Your task to perform on an android device: change notifications settings Image 0: 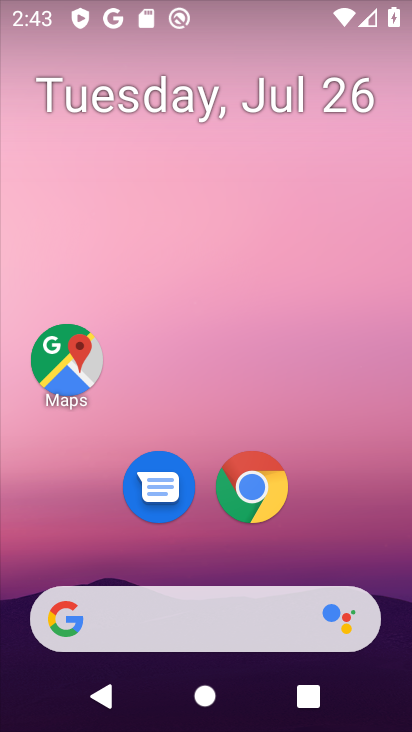
Step 0: drag from (190, 577) to (304, 0)
Your task to perform on an android device: change notifications settings Image 1: 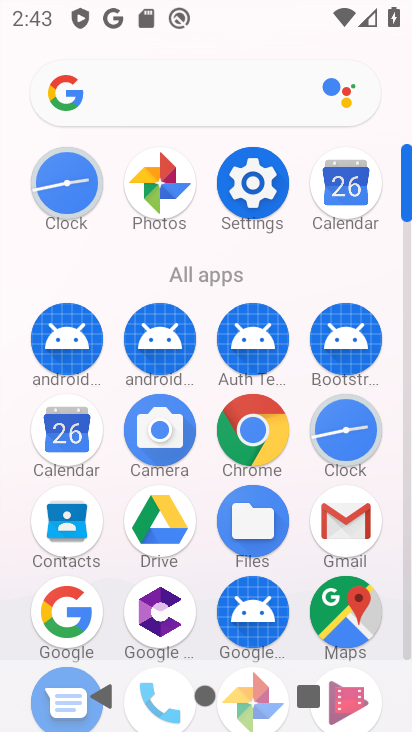
Step 1: click (248, 181)
Your task to perform on an android device: change notifications settings Image 2: 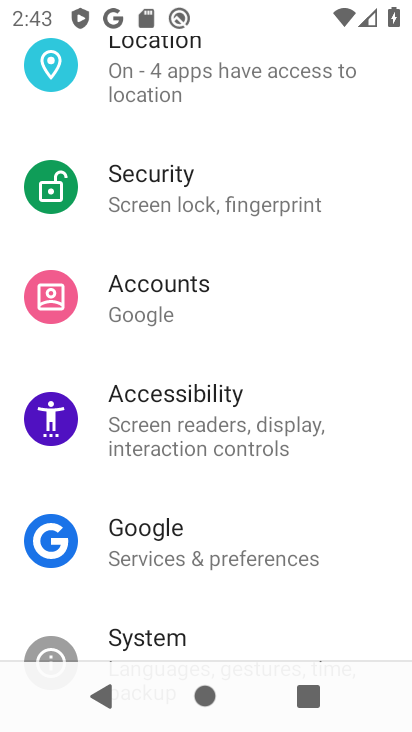
Step 2: drag from (279, 157) to (196, 728)
Your task to perform on an android device: change notifications settings Image 3: 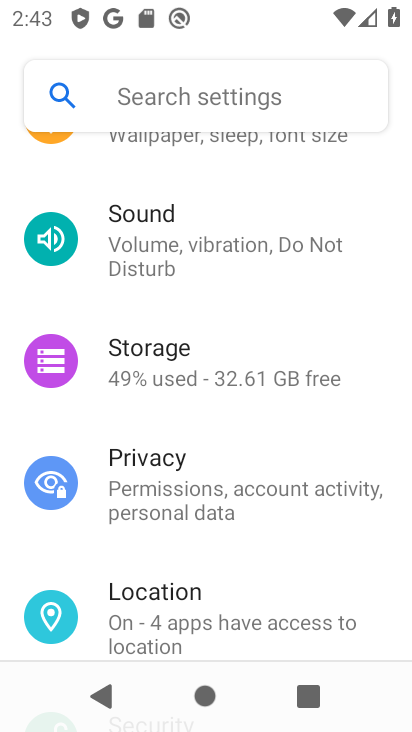
Step 3: drag from (255, 215) to (162, 720)
Your task to perform on an android device: change notifications settings Image 4: 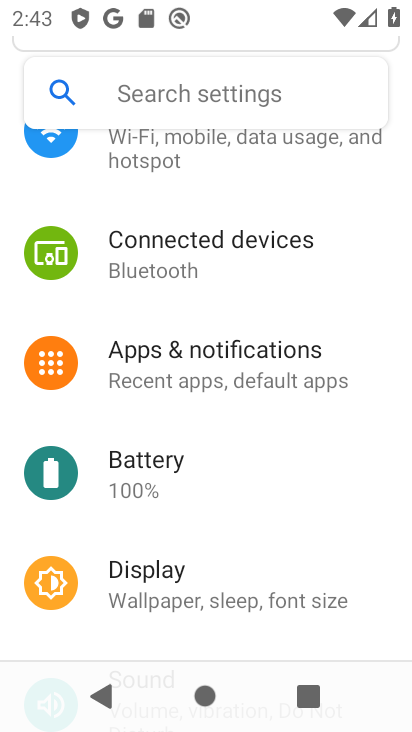
Step 4: drag from (208, 206) to (239, 444)
Your task to perform on an android device: change notifications settings Image 5: 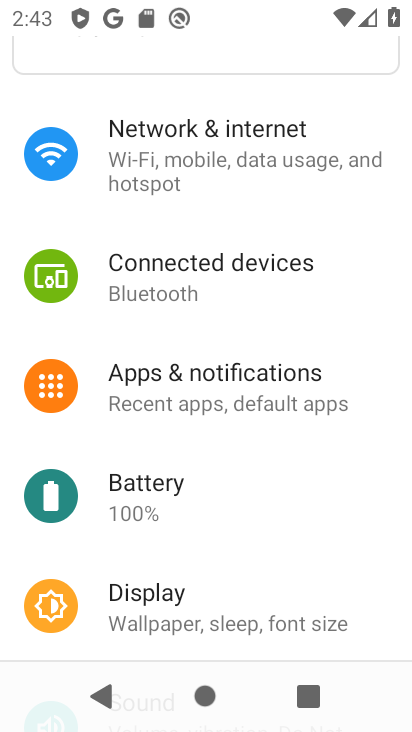
Step 5: click (237, 394)
Your task to perform on an android device: change notifications settings Image 6: 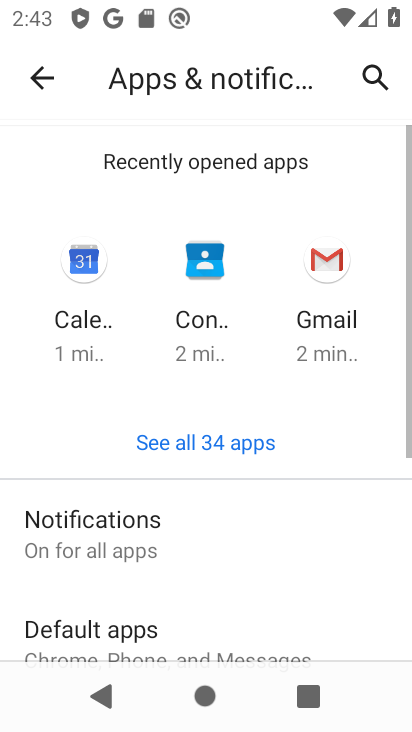
Step 6: drag from (173, 629) to (278, 137)
Your task to perform on an android device: change notifications settings Image 7: 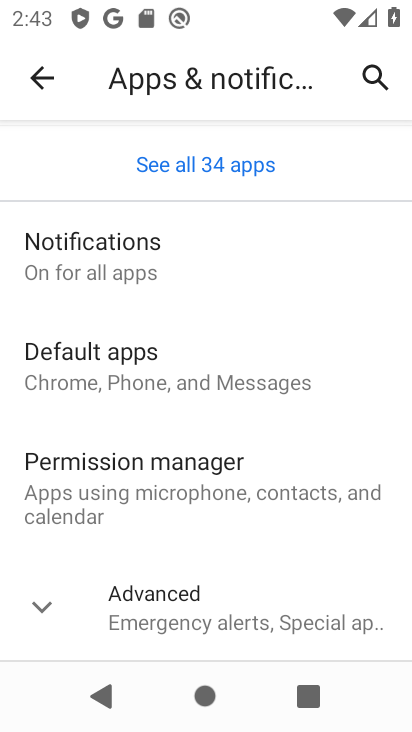
Step 7: click (131, 273)
Your task to perform on an android device: change notifications settings Image 8: 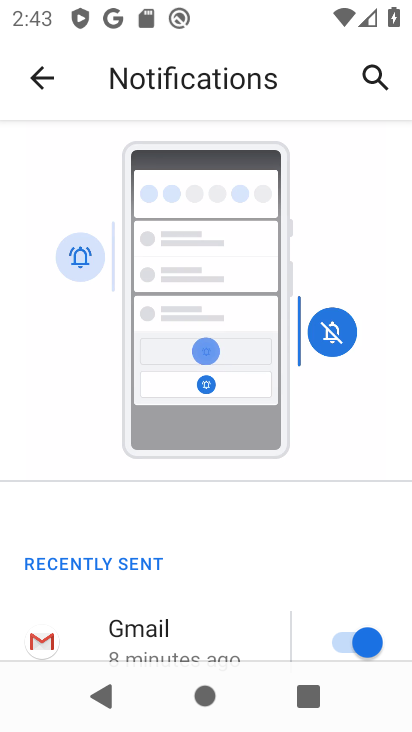
Step 8: drag from (171, 619) to (262, 3)
Your task to perform on an android device: change notifications settings Image 9: 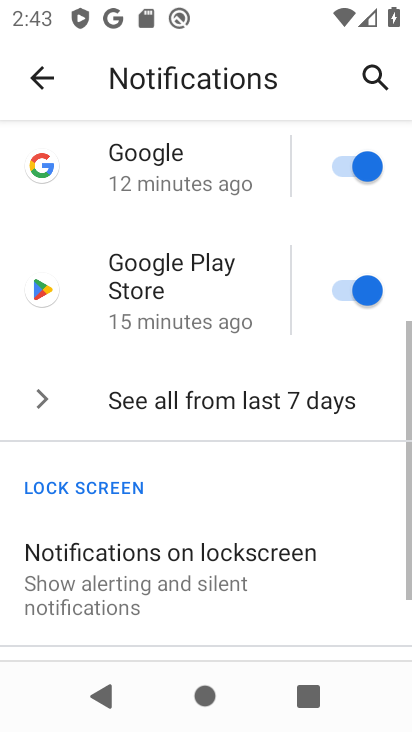
Step 9: drag from (151, 558) to (227, 55)
Your task to perform on an android device: change notifications settings Image 10: 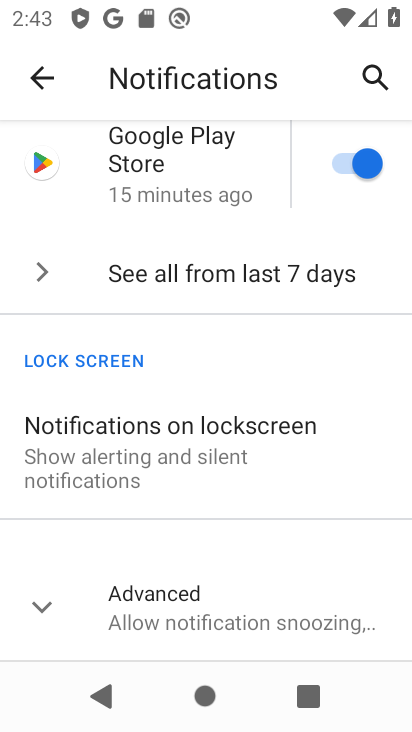
Step 10: click (203, 608)
Your task to perform on an android device: change notifications settings Image 11: 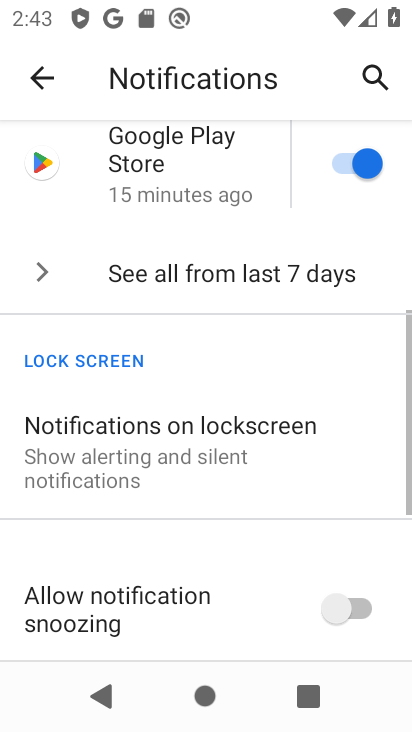
Step 11: drag from (186, 606) to (168, 484)
Your task to perform on an android device: change notifications settings Image 12: 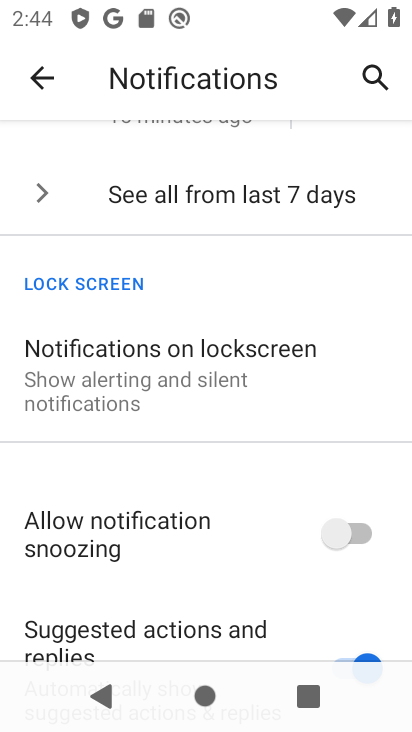
Step 12: drag from (133, 604) to (204, 430)
Your task to perform on an android device: change notifications settings Image 13: 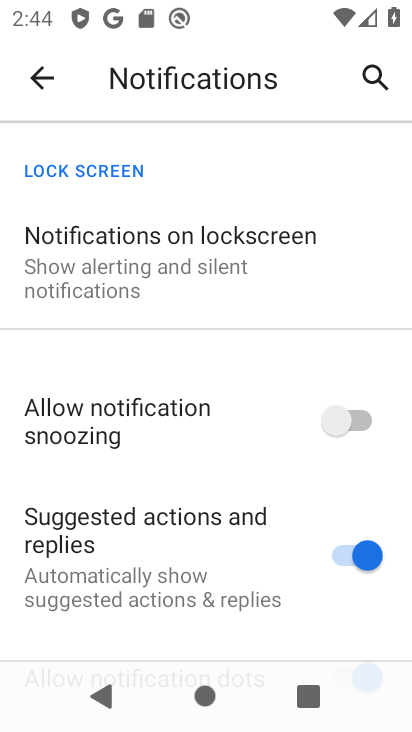
Step 13: drag from (211, 257) to (216, 481)
Your task to perform on an android device: change notifications settings Image 14: 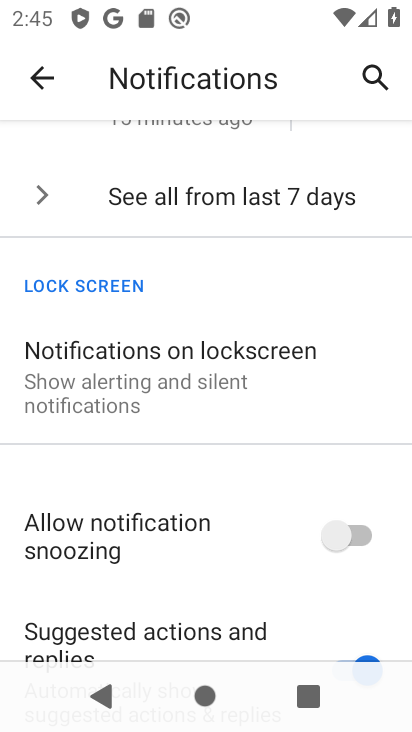
Step 14: click (350, 524)
Your task to perform on an android device: change notifications settings Image 15: 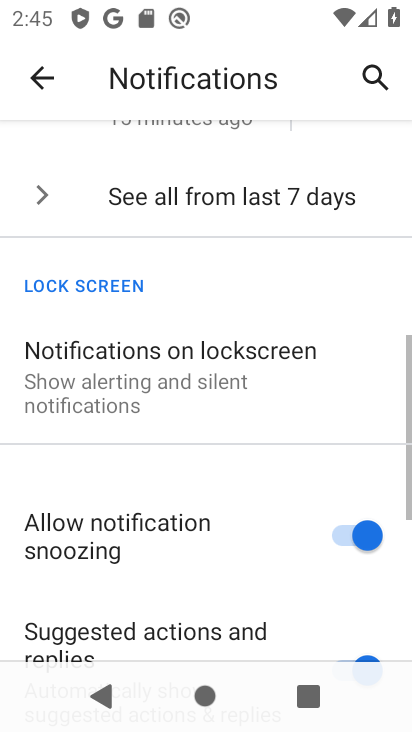
Step 15: task complete